Your task to perform on an android device: toggle sleep mode Image 0: 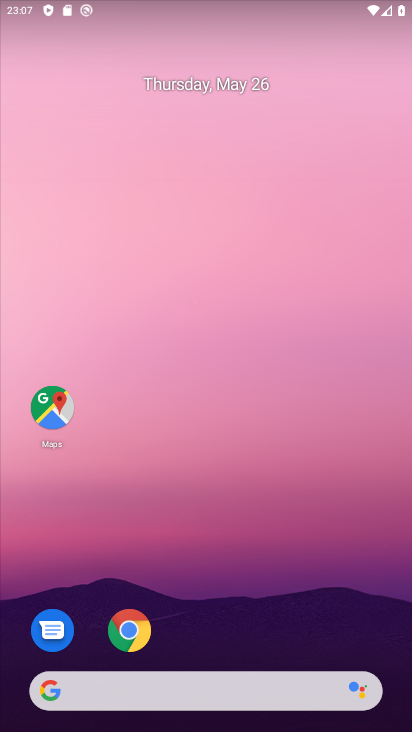
Step 0: drag from (255, 621) to (309, 34)
Your task to perform on an android device: toggle sleep mode Image 1: 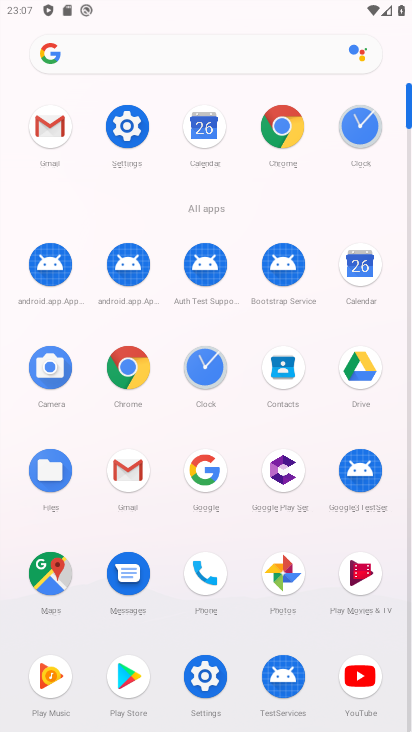
Step 1: click (205, 675)
Your task to perform on an android device: toggle sleep mode Image 2: 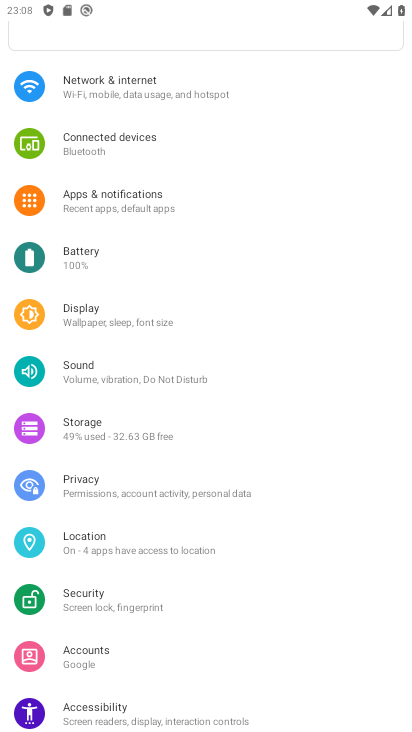
Step 2: click (132, 326)
Your task to perform on an android device: toggle sleep mode Image 3: 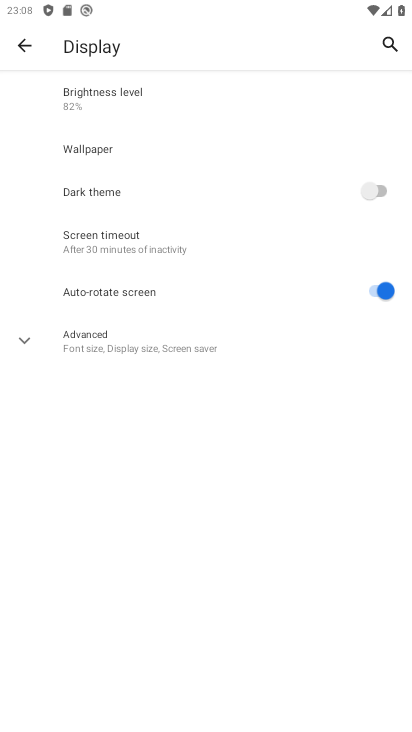
Step 3: click (168, 239)
Your task to perform on an android device: toggle sleep mode Image 4: 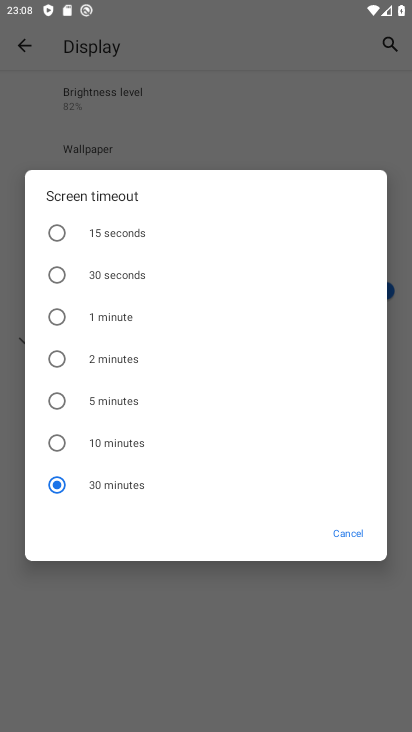
Step 4: click (333, 536)
Your task to perform on an android device: toggle sleep mode Image 5: 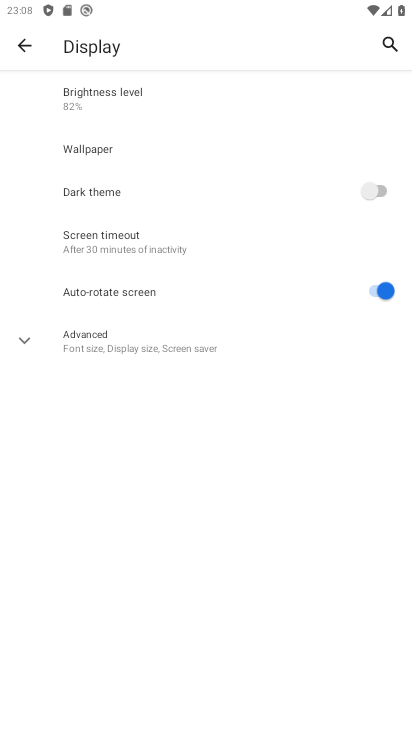
Step 5: click (147, 345)
Your task to perform on an android device: toggle sleep mode Image 6: 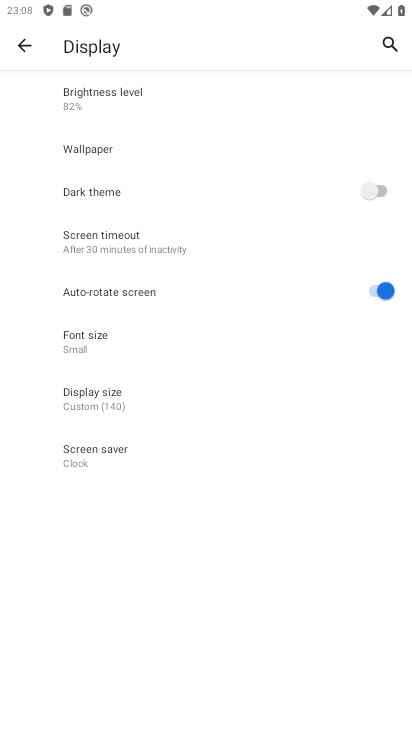
Step 6: task complete